Your task to perform on an android device: check data usage Image 0: 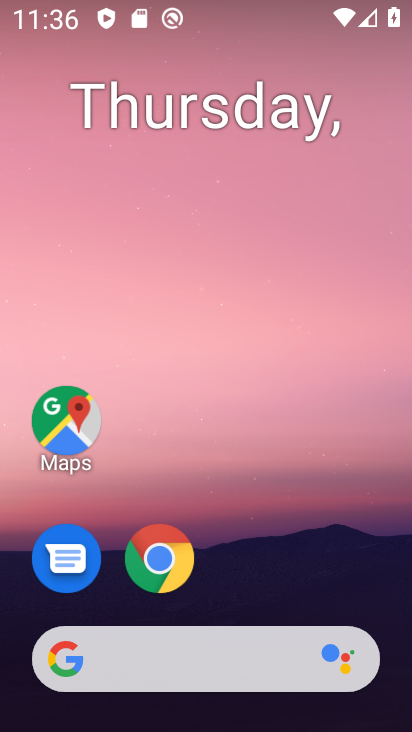
Step 0: drag from (357, 586) to (374, 80)
Your task to perform on an android device: check data usage Image 1: 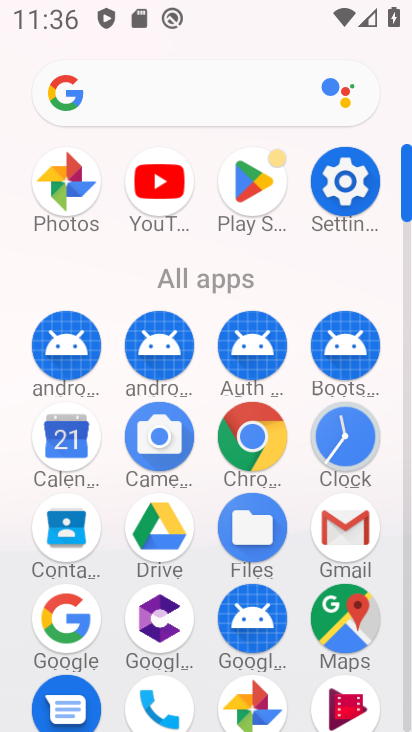
Step 1: click (352, 189)
Your task to perform on an android device: check data usage Image 2: 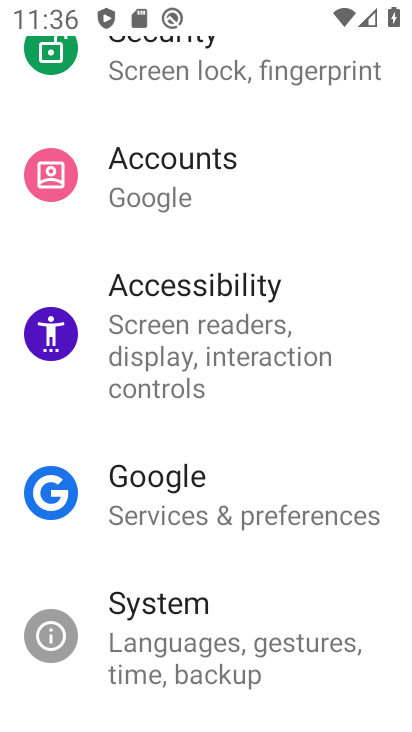
Step 2: drag from (349, 194) to (354, 245)
Your task to perform on an android device: check data usage Image 3: 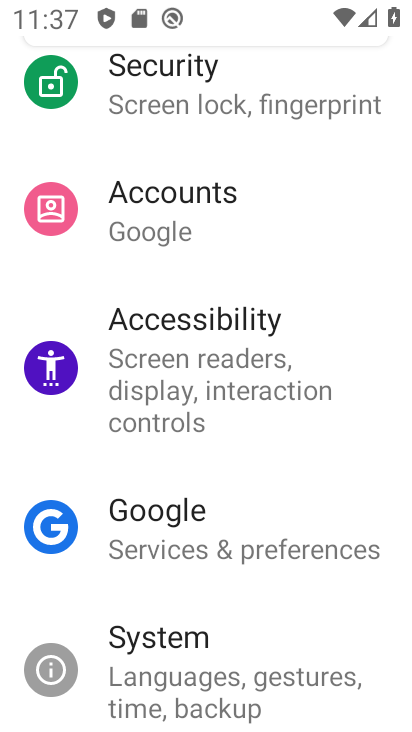
Step 3: drag from (363, 181) to (365, 248)
Your task to perform on an android device: check data usage Image 4: 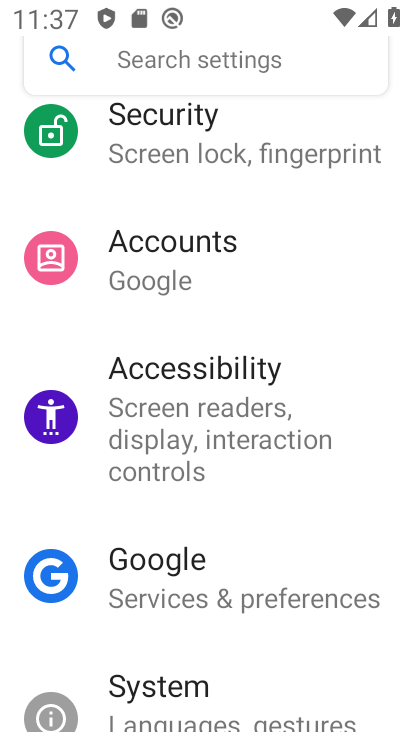
Step 4: drag from (362, 197) to (368, 277)
Your task to perform on an android device: check data usage Image 5: 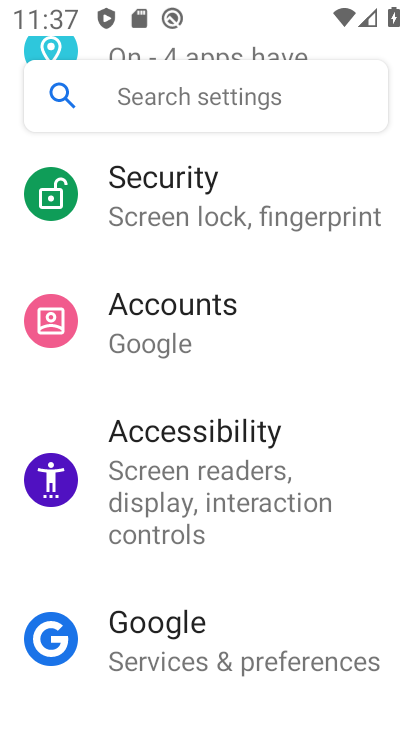
Step 5: drag from (359, 241) to (359, 299)
Your task to perform on an android device: check data usage Image 6: 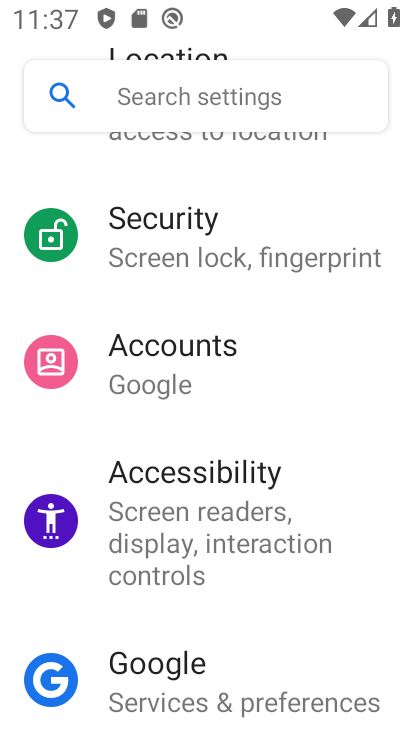
Step 6: drag from (361, 242) to (365, 318)
Your task to perform on an android device: check data usage Image 7: 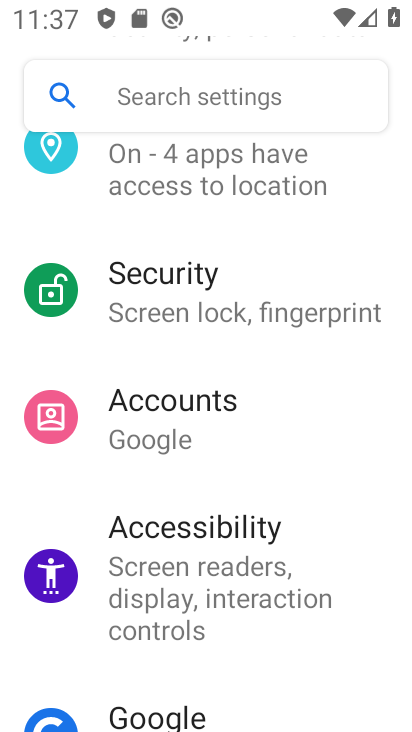
Step 7: drag from (359, 219) to (369, 304)
Your task to perform on an android device: check data usage Image 8: 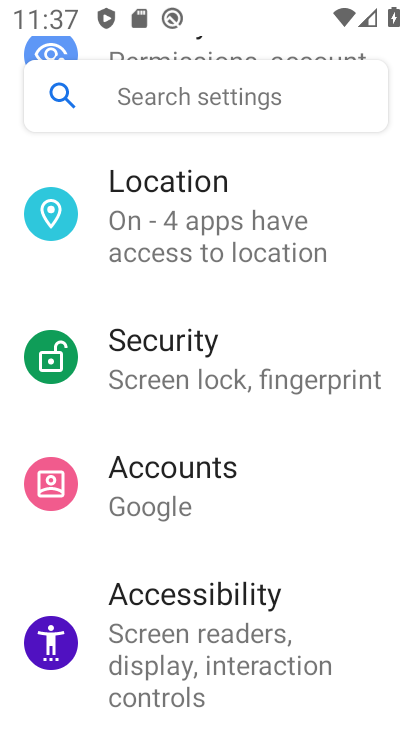
Step 8: drag from (367, 246) to (369, 315)
Your task to perform on an android device: check data usage Image 9: 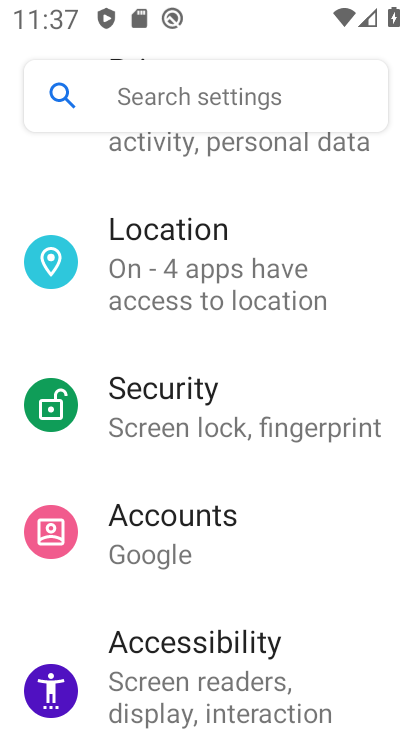
Step 9: drag from (377, 235) to (381, 314)
Your task to perform on an android device: check data usage Image 10: 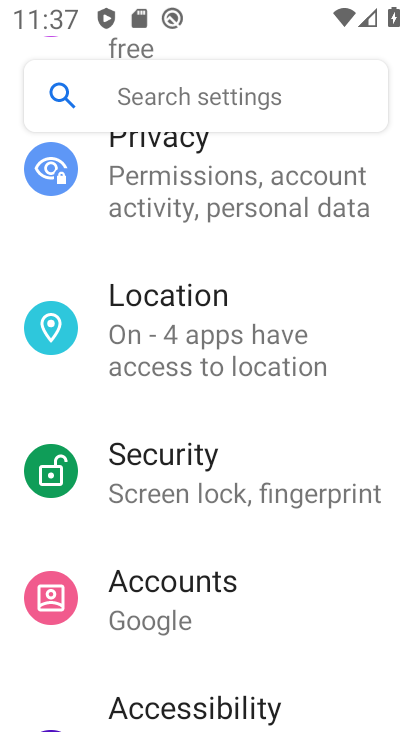
Step 10: drag from (376, 252) to (382, 356)
Your task to perform on an android device: check data usage Image 11: 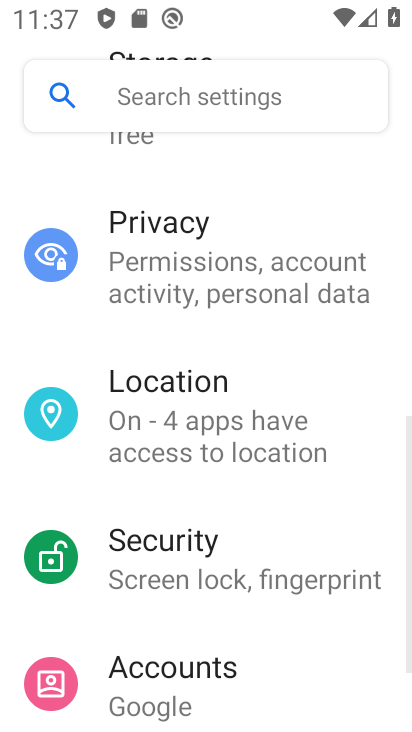
Step 11: drag from (378, 274) to (380, 357)
Your task to perform on an android device: check data usage Image 12: 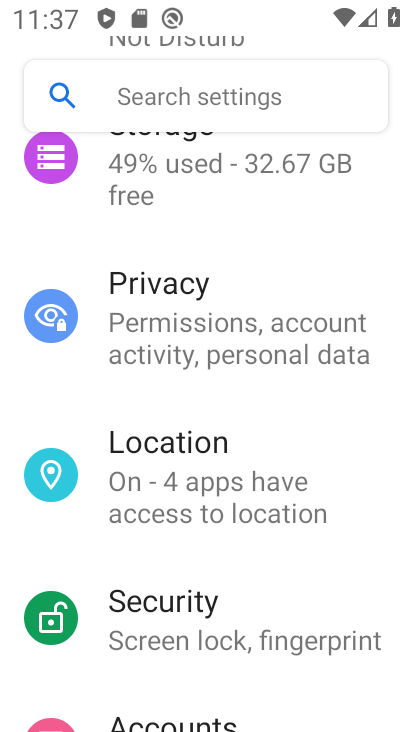
Step 12: drag from (372, 243) to (366, 328)
Your task to perform on an android device: check data usage Image 13: 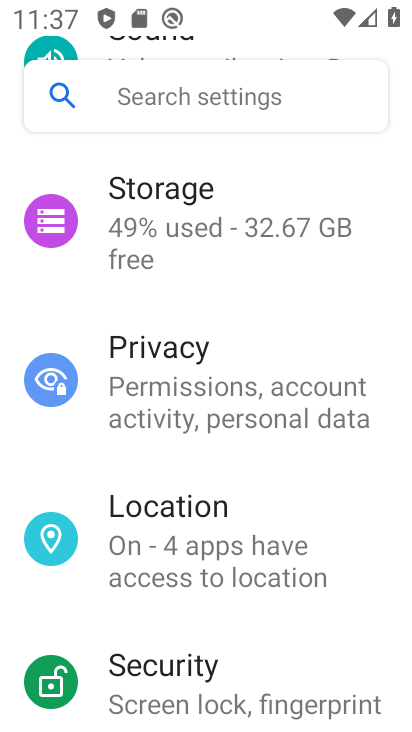
Step 13: drag from (370, 243) to (372, 346)
Your task to perform on an android device: check data usage Image 14: 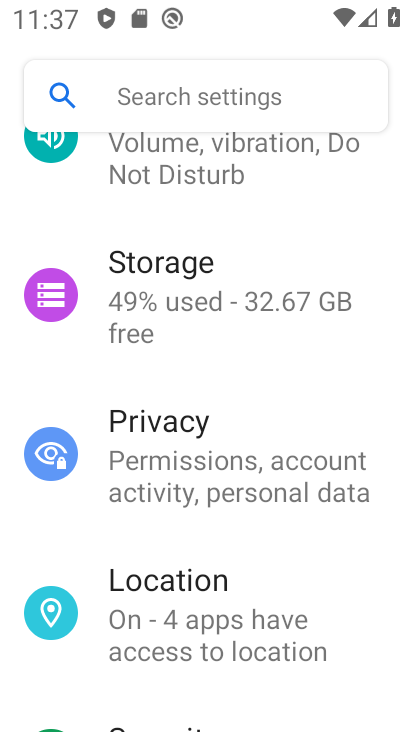
Step 14: drag from (369, 240) to (373, 302)
Your task to perform on an android device: check data usage Image 15: 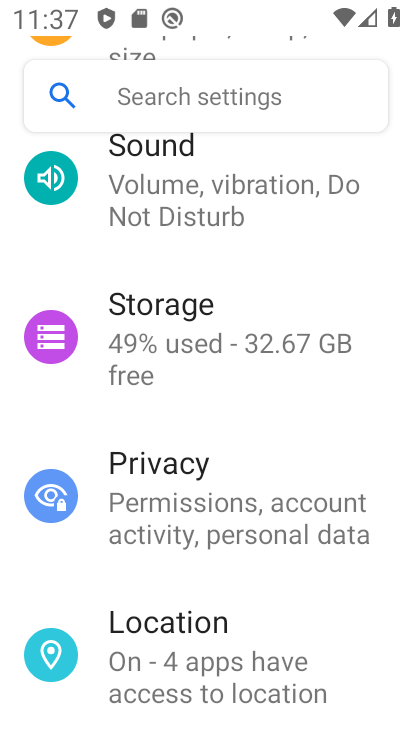
Step 15: drag from (367, 221) to (370, 318)
Your task to perform on an android device: check data usage Image 16: 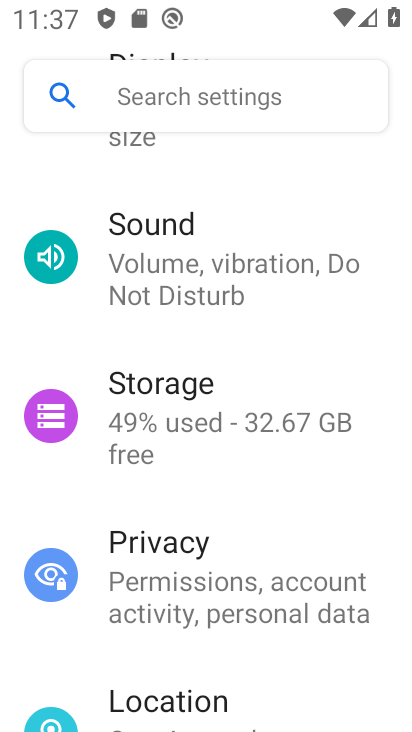
Step 16: drag from (371, 240) to (365, 338)
Your task to perform on an android device: check data usage Image 17: 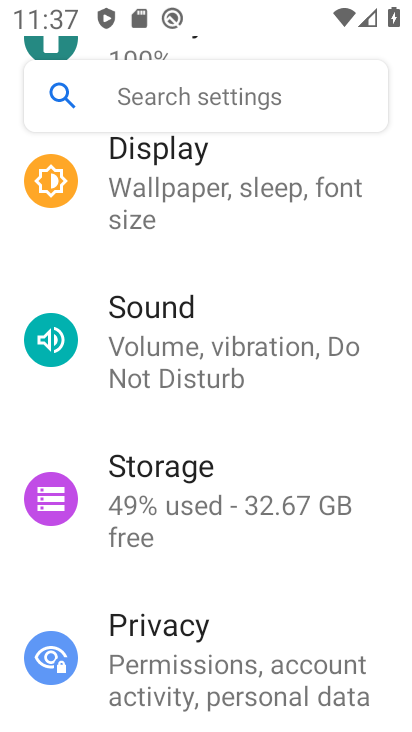
Step 17: drag from (375, 238) to (371, 342)
Your task to perform on an android device: check data usage Image 18: 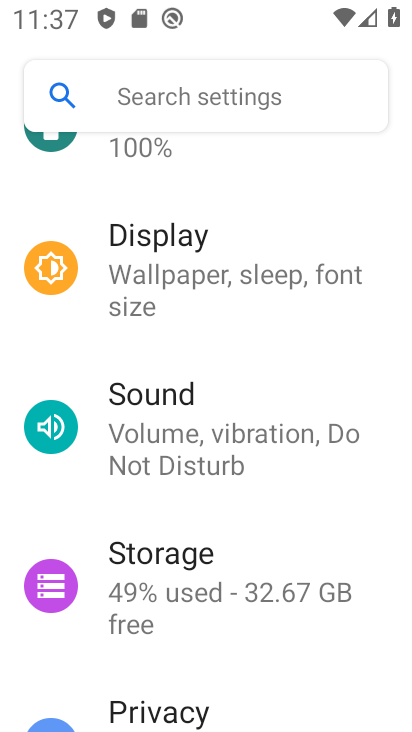
Step 18: drag from (375, 231) to (379, 347)
Your task to perform on an android device: check data usage Image 19: 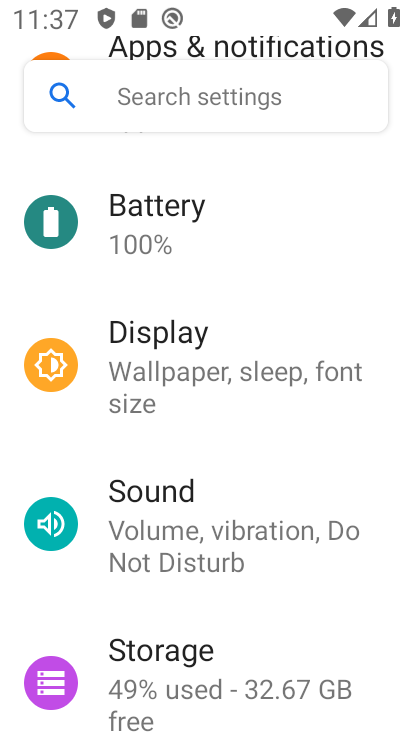
Step 19: drag from (369, 221) to (369, 344)
Your task to perform on an android device: check data usage Image 20: 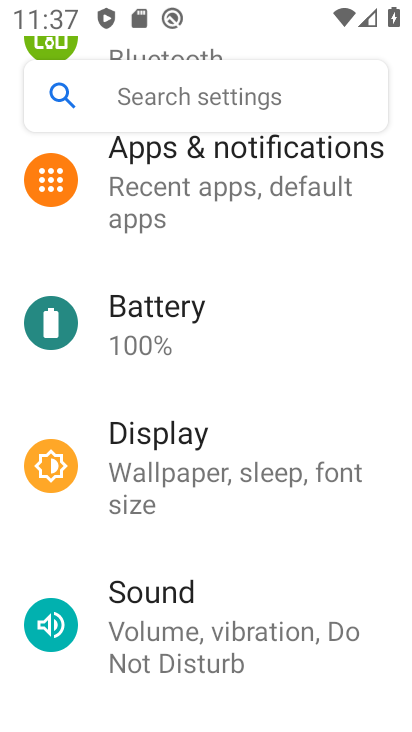
Step 20: drag from (381, 236) to (371, 368)
Your task to perform on an android device: check data usage Image 21: 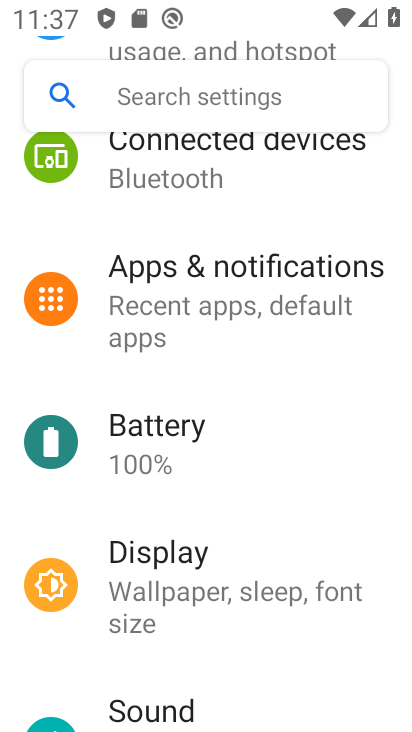
Step 21: drag from (369, 225) to (371, 338)
Your task to perform on an android device: check data usage Image 22: 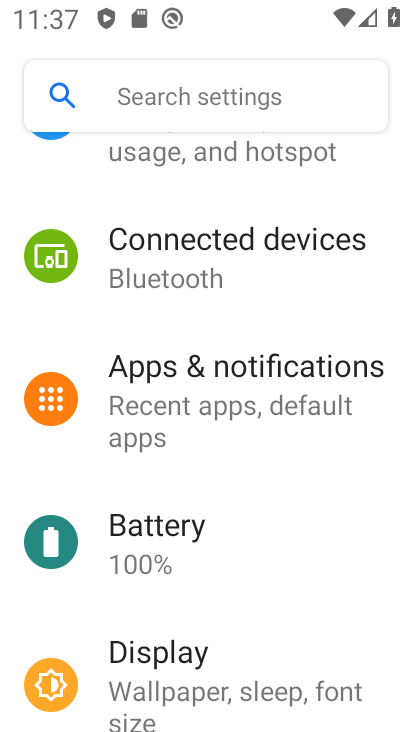
Step 22: drag from (384, 214) to (379, 361)
Your task to perform on an android device: check data usage Image 23: 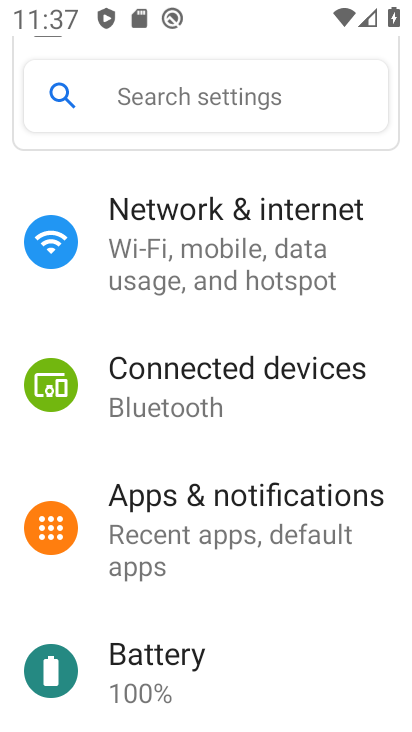
Step 23: click (313, 273)
Your task to perform on an android device: check data usage Image 24: 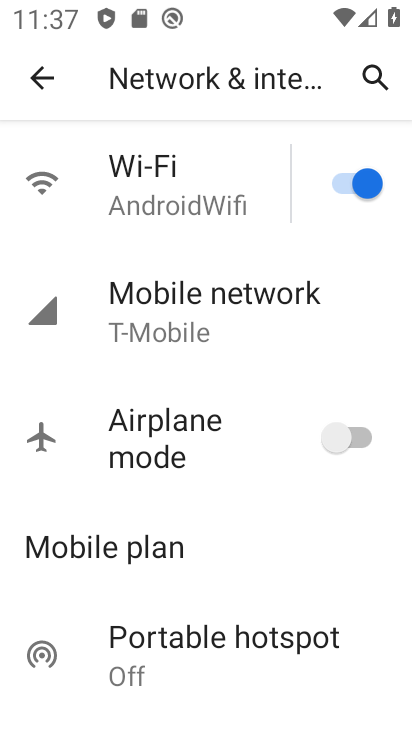
Step 24: click (228, 332)
Your task to perform on an android device: check data usage Image 25: 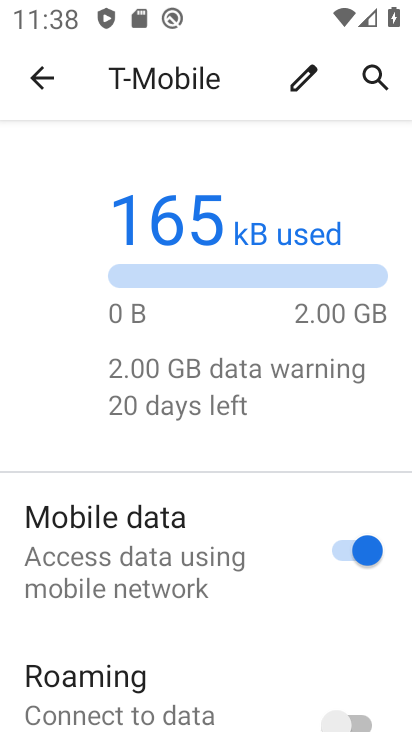
Step 25: drag from (263, 501) to (262, 410)
Your task to perform on an android device: check data usage Image 26: 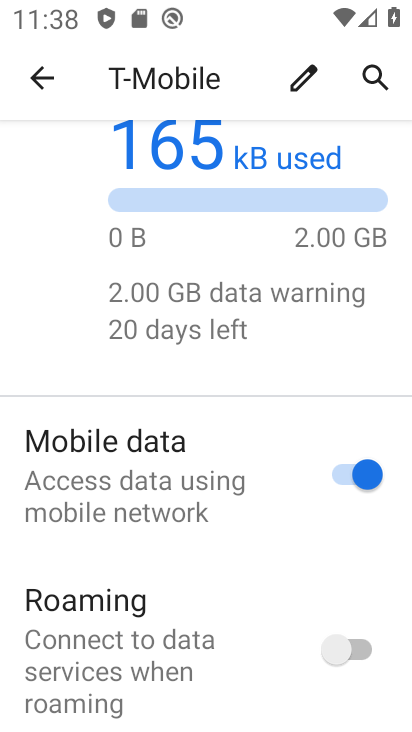
Step 26: drag from (256, 553) to (260, 380)
Your task to perform on an android device: check data usage Image 27: 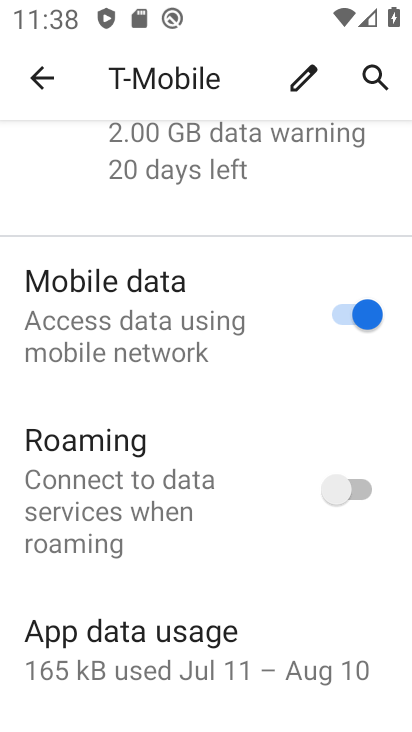
Step 27: drag from (244, 569) to (268, 380)
Your task to perform on an android device: check data usage Image 28: 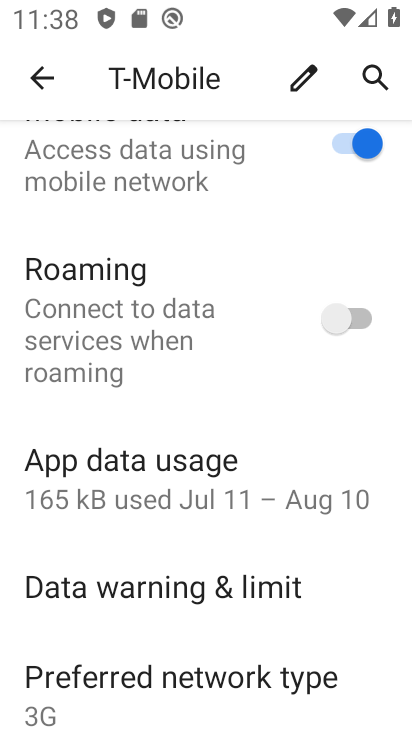
Step 28: click (255, 460)
Your task to perform on an android device: check data usage Image 29: 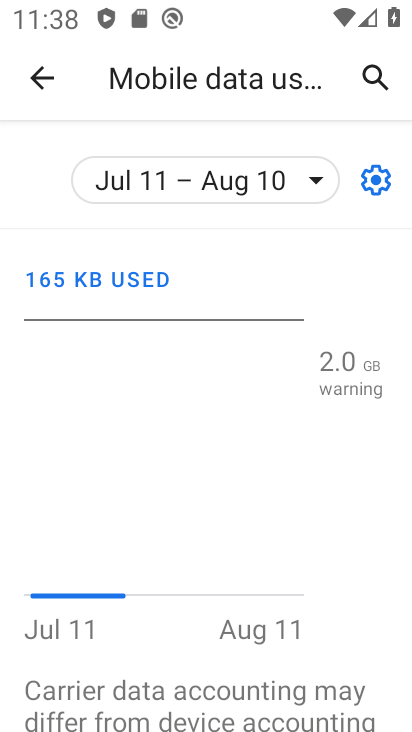
Step 29: task complete